Your task to perform on an android device: toggle improve location accuracy Image 0: 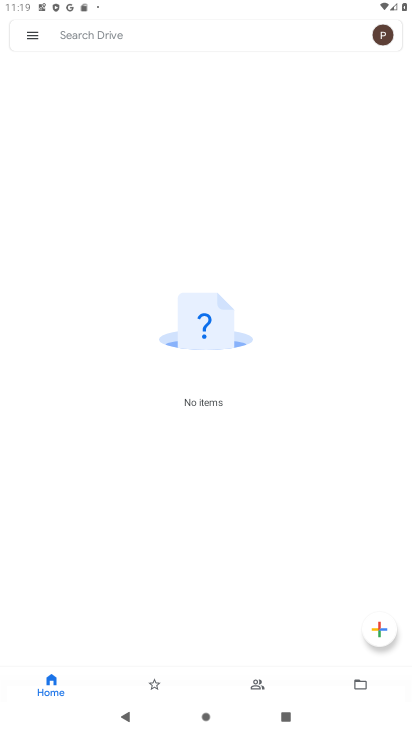
Step 0: press home button
Your task to perform on an android device: toggle improve location accuracy Image 1: 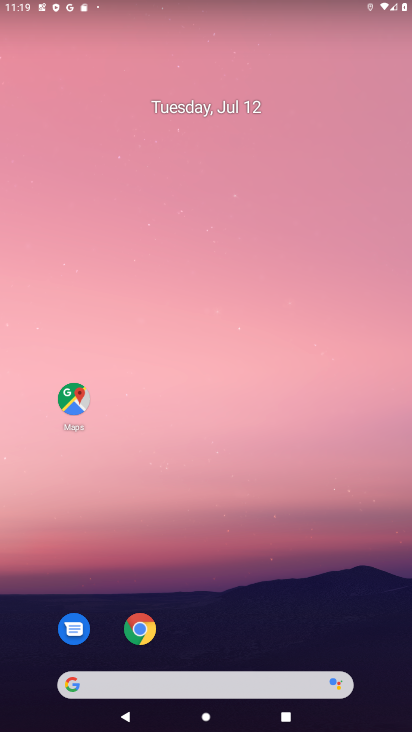
Step 1: drag from (331, 596) to (328, 270)
Your task to perform on an android device: toggle improve location accuracy Image 2: 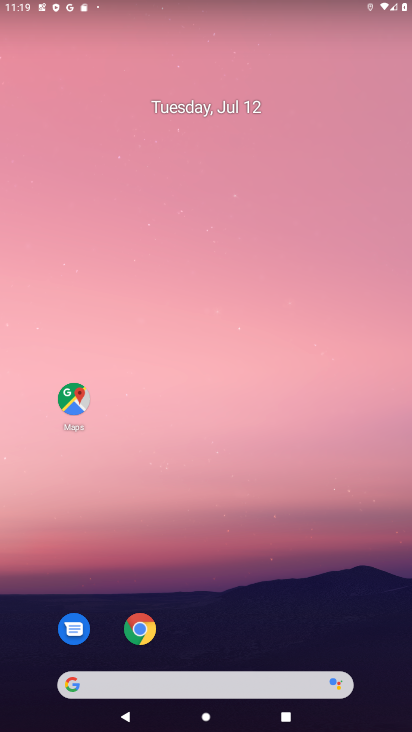
Step 2: drag from (213, 659) to (230, 249)
Your task to perform on an android device: toggle improve location accuracy Image 3: 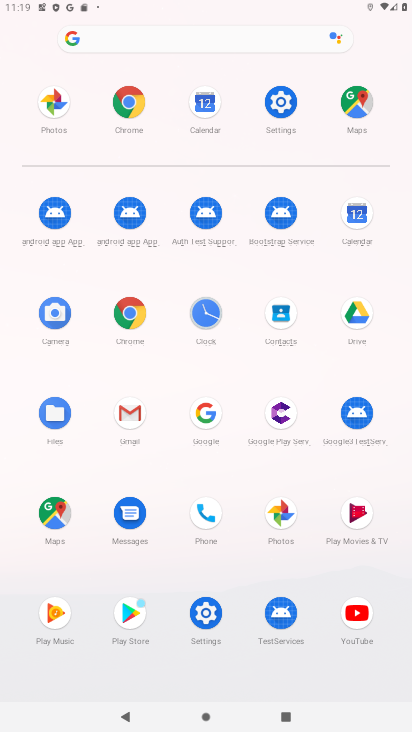
Step 3: click (291, 90)
Your task to perform on an android device: toggle improve location accuracy Image 4: 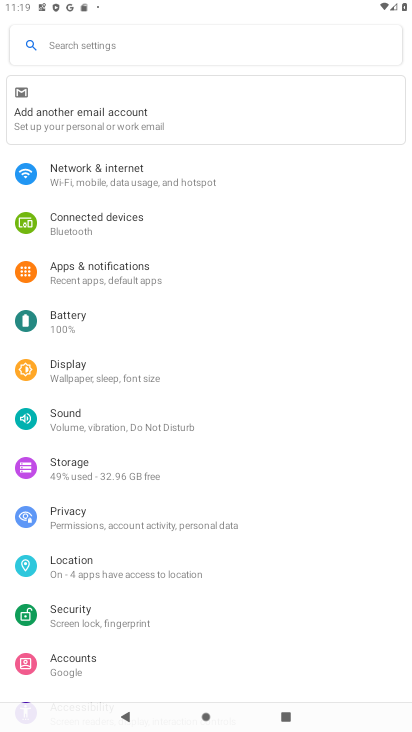
Step 4: click (130, 563)
Your task to perform on an android device: toggle improve location accuracy Image 5: 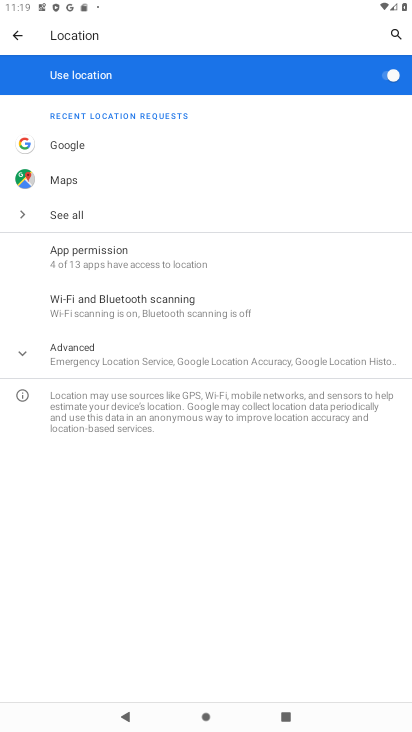
Step 5: click (151, 351)
Your task to perform on an android device: toggle improve location accuracy Image 6: 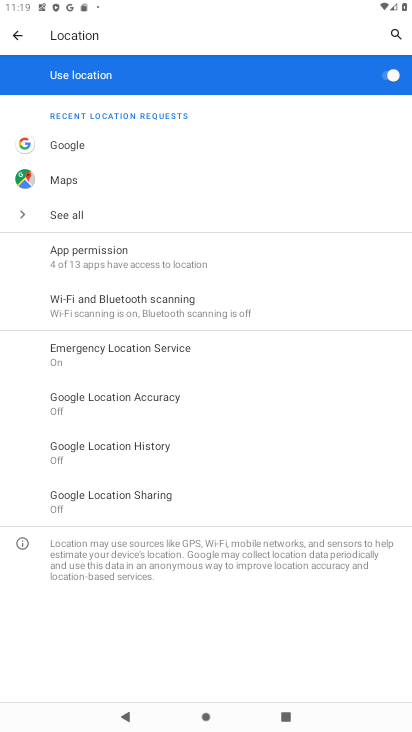
Step 6: click (149, 402)
Your task to perform on an android device: toggle improve location accuracy Image 7: 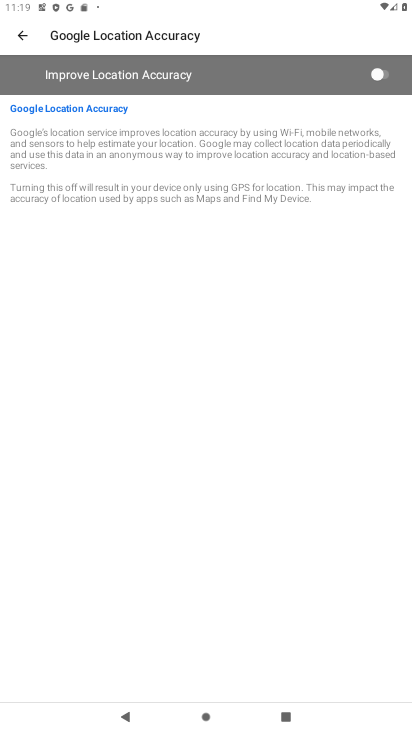
Step 7: click (376, 72)
Your task to perform on an android device: toggle improve location accuracy Image 8: 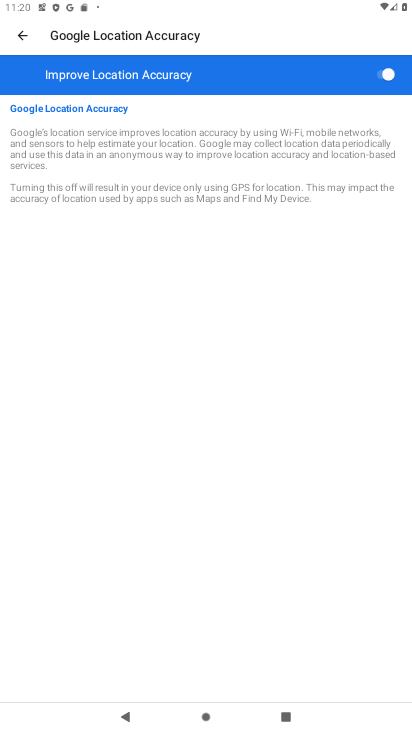
Step 8: task complete